Your task to perform on an android device: install app "Cash App" Image 0: 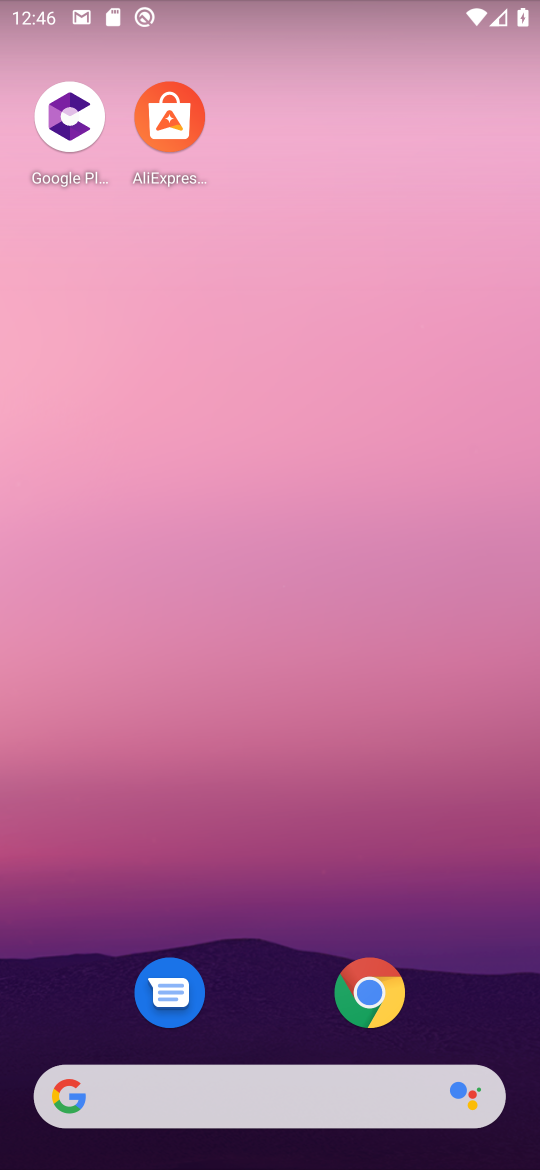
Step 0: drag from (262, 1076) to (329, 164)
Your task to perform on an android device: install app "Cash App" Image 1: 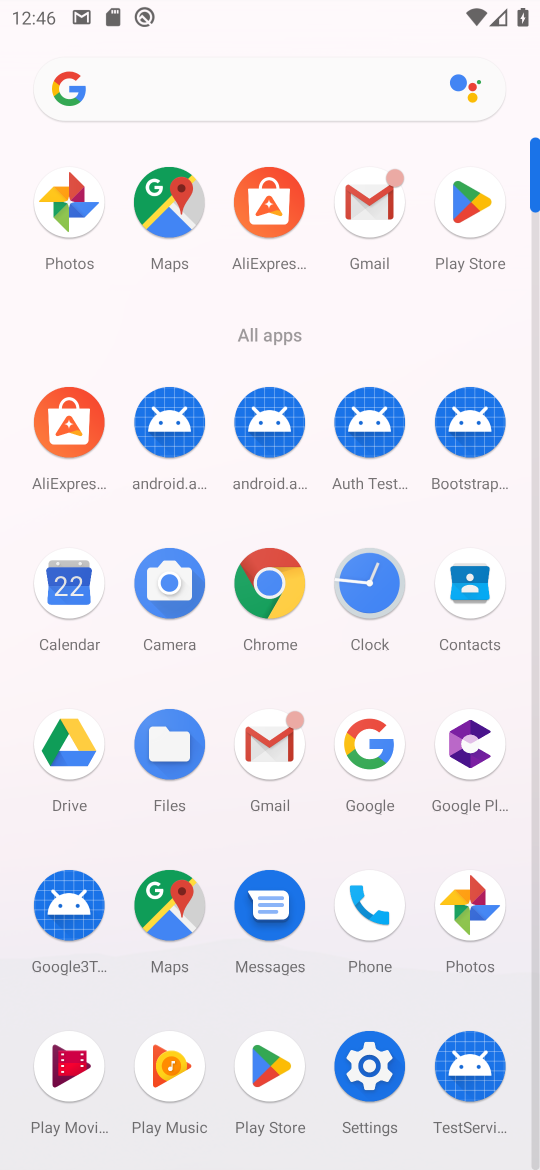
Step 1: click (483, 198)
Your task to perform on an android device: install app "Cash App" Image 2: 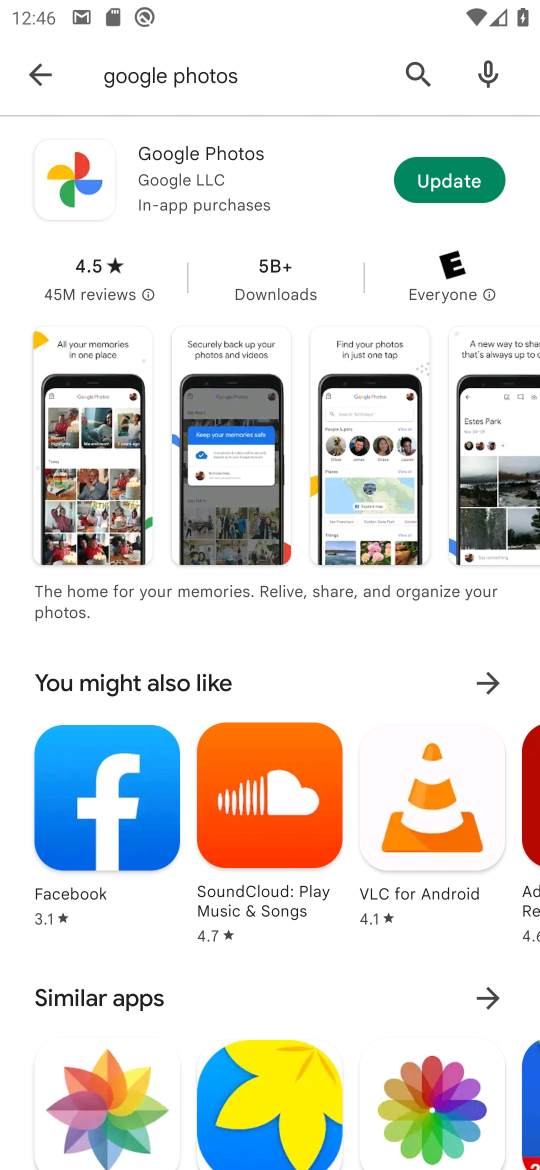
Step 2: click (411, 73)
Your task to perform on an android device: install app "Cash App" Image 3: 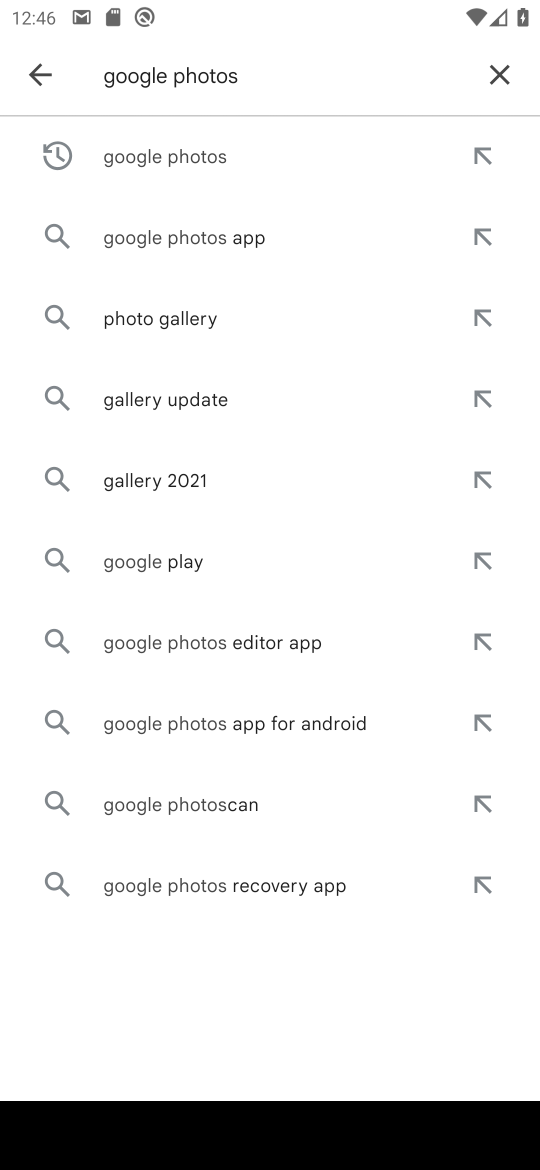
Step 3: click (484, 77)
Your task to perform on an android device: install app "Cash App" Image 4: 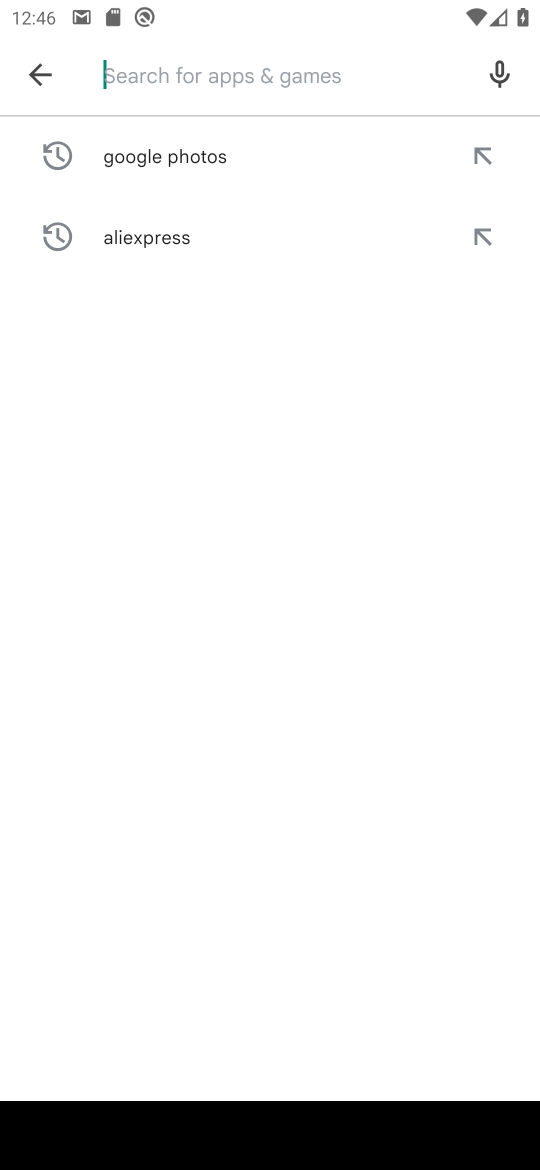
Step 4: type "Cash App"
Your task to perform on an android device: install app "Cash App" Image 5: 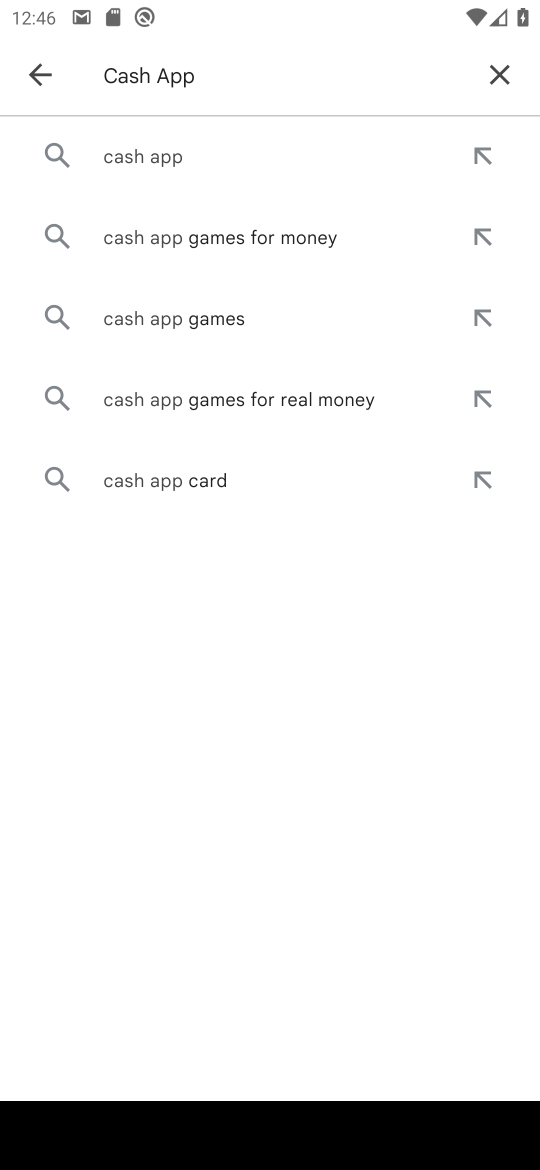
Step 5: click (162, 150)
Your task to perform on an android device: install app "Cash App" Image 6: 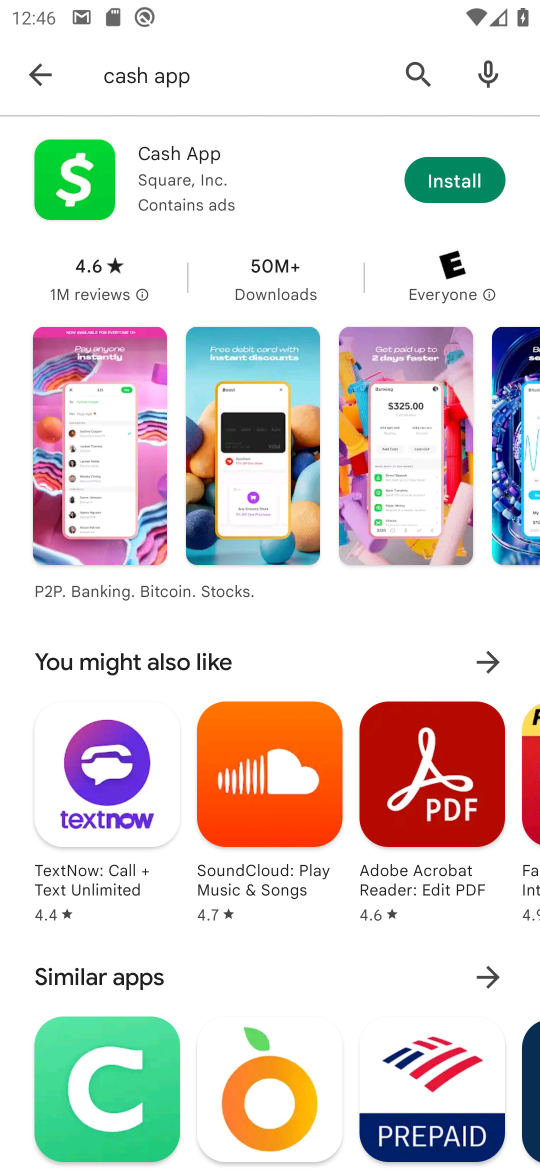
Step 6: click (469, 179)
Your task to perform on an android device: install app "Cash App" Image 7: 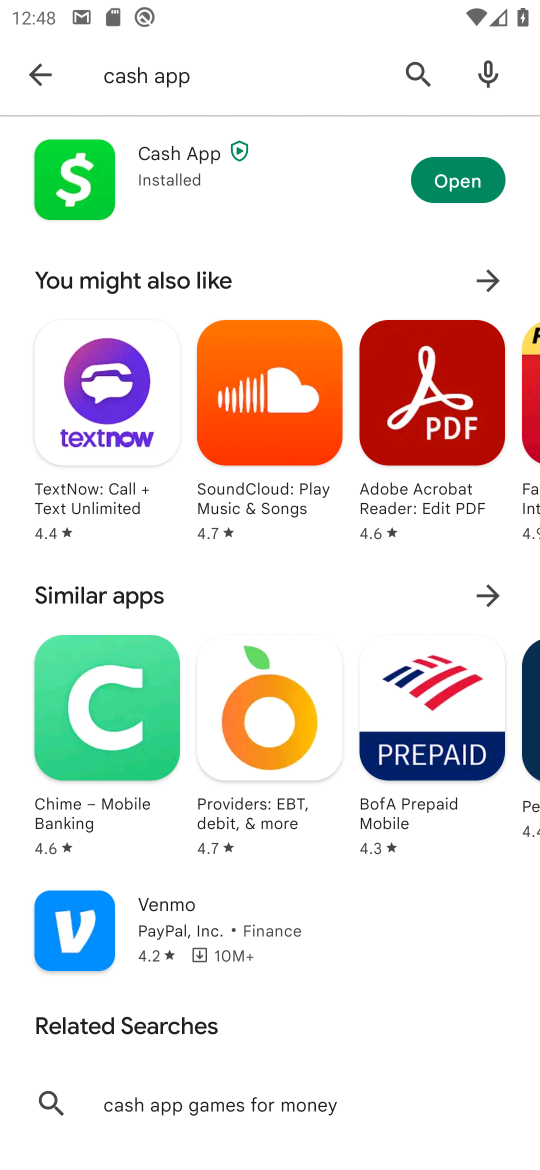
Step 7: click (432, 188)
Your task to perform on an android device: install app "Cash App" Image 8: 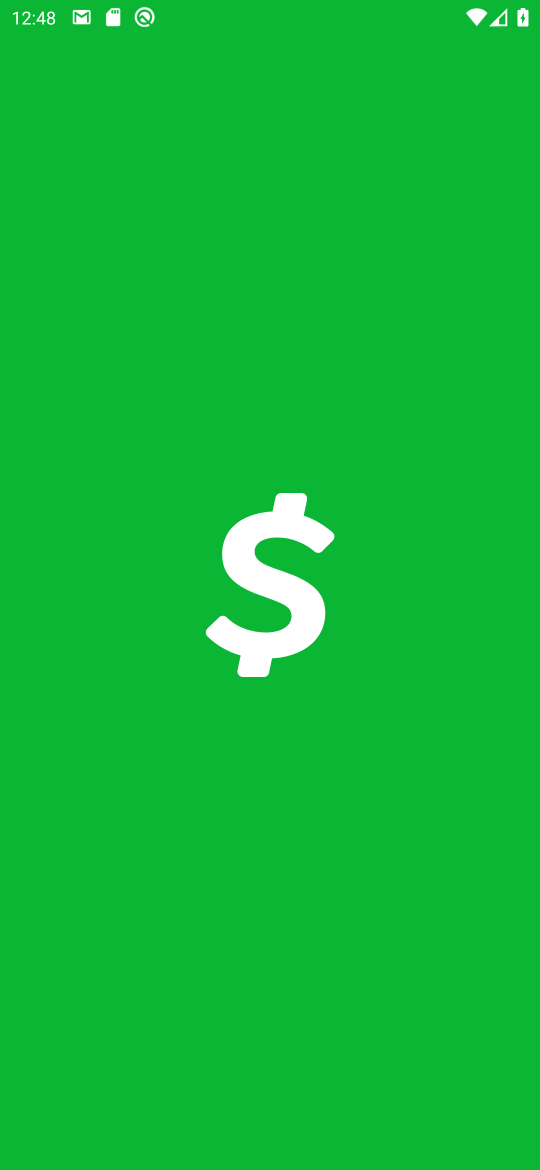
Step 8: task complete